Your task to perform on an android device: stop showing notifications on the lock screen Image 0: 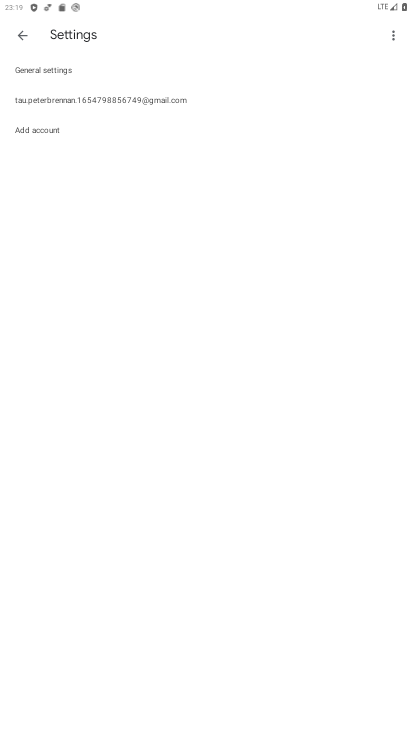
Step 0: press home button
Your task to perform on an android device: stop showing notifications on the lock screen Image 1: 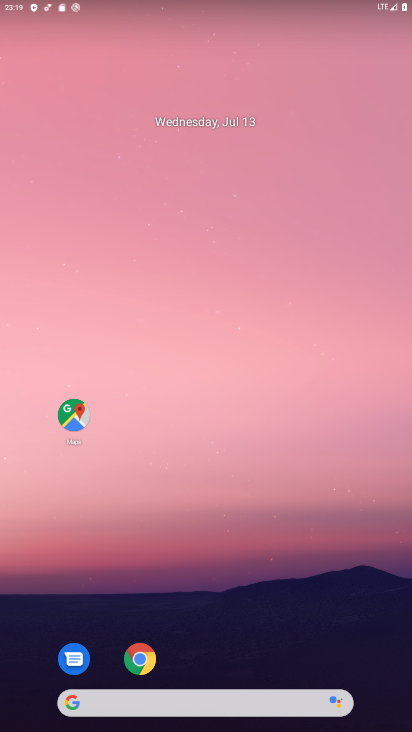
Step 1: drag from (359, 640) to (314, 137)
Your task to perform on an android device: stop showing notifications on the lock screen Image 2: 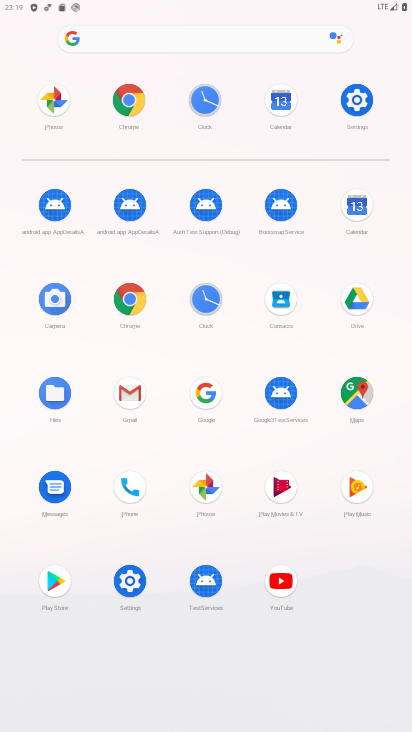
Step 2: click (130, 579)
Your task to perform on an android device: stop showing notifications on the lock screen Image 3: 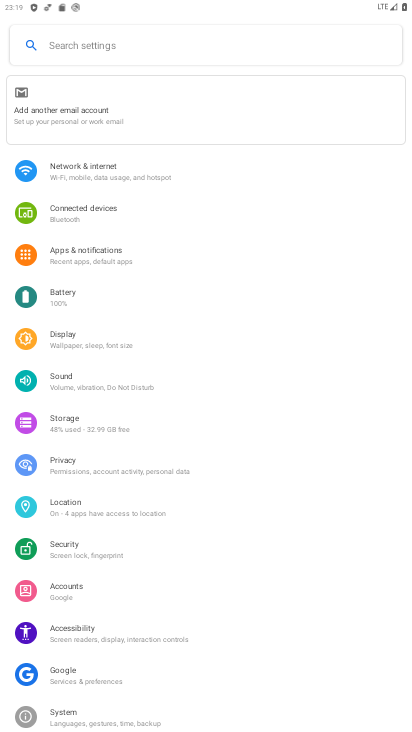
Step 3: click (81, 247)
Your task to perform on an android device: stop showing notifications on the lock screen Image 4: 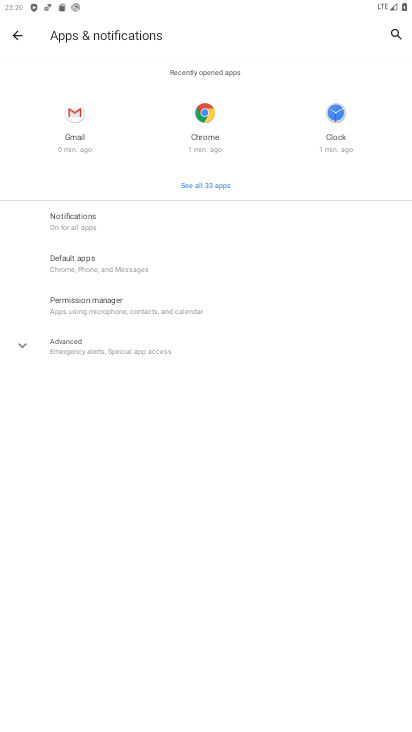
Step 4: click (25, 347)
Your task to perform on an android device: stop showing notifications on the lock screen Image 5: 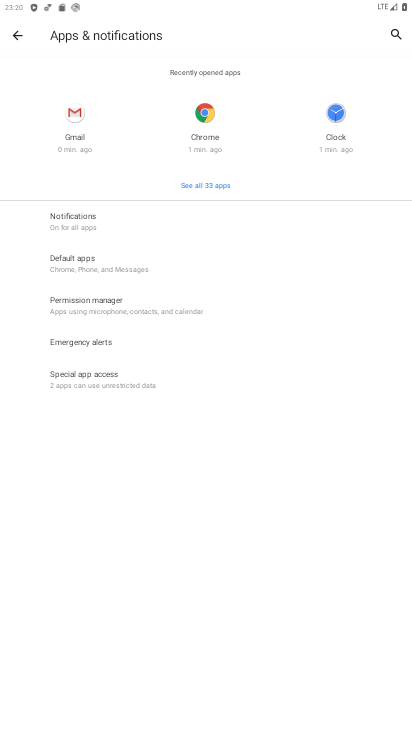
Step 5: click (62, 222)
Your task to perform on an android device: stop showing notifications on the lock screen Image 6: 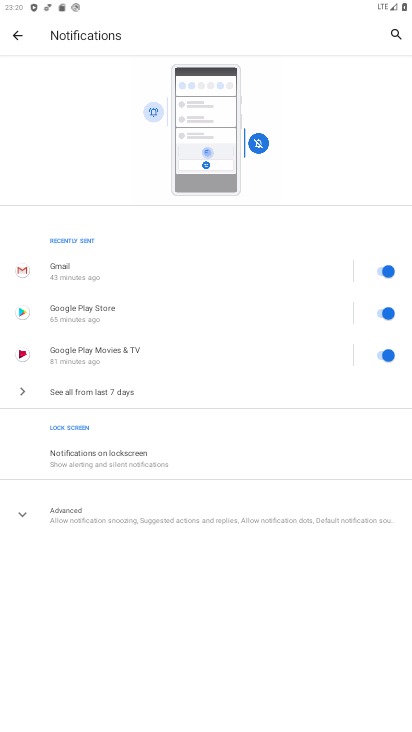
Step 6: click (20, 518)
Your task to perform on an android device: stop showing notifications on the lock screen Image 7: 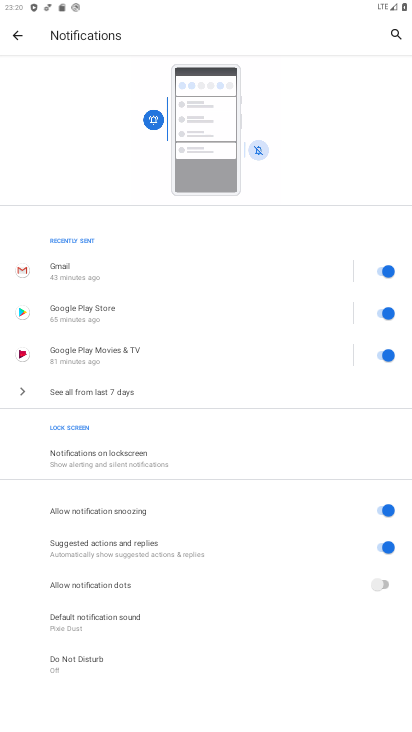
Step 7: click (111, 465)
Your task to perform on an android device: stop showing notifications on the lock screen Image 8: 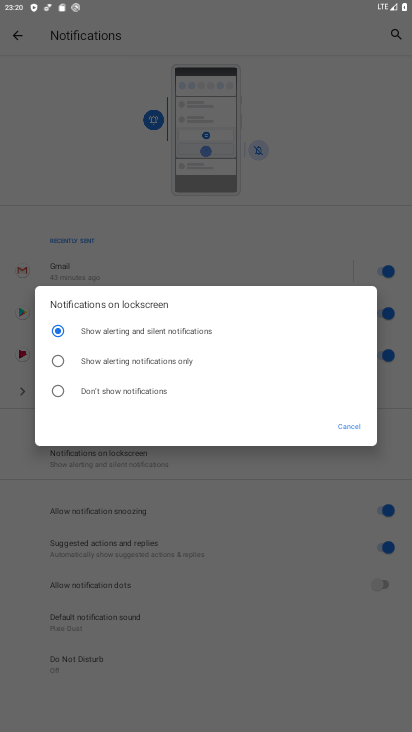
Step 8: click (71, 393)
Your task to perform on an android device: stop showing notifications on the lock screen Image 9: 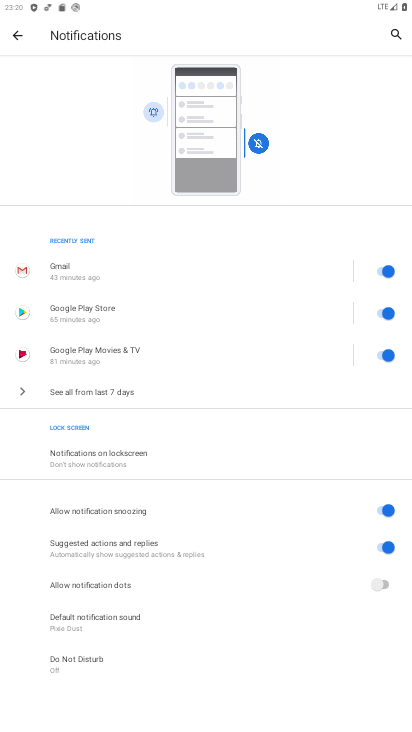
Step 9: task complete